Your task to perform on an android device: Open location settings Image 0: 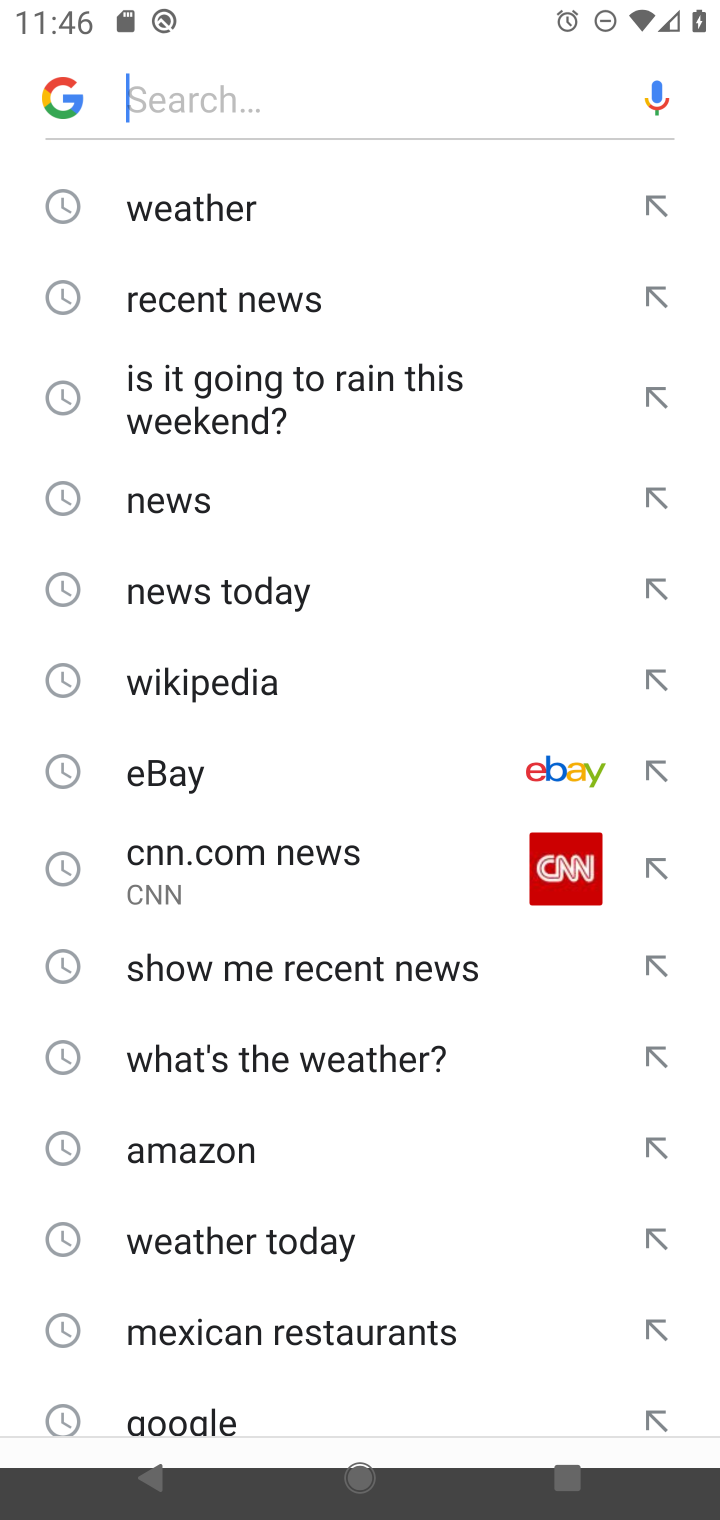
Step 0: press home button
Your task to perform on an android device: Open location settings Image 1: 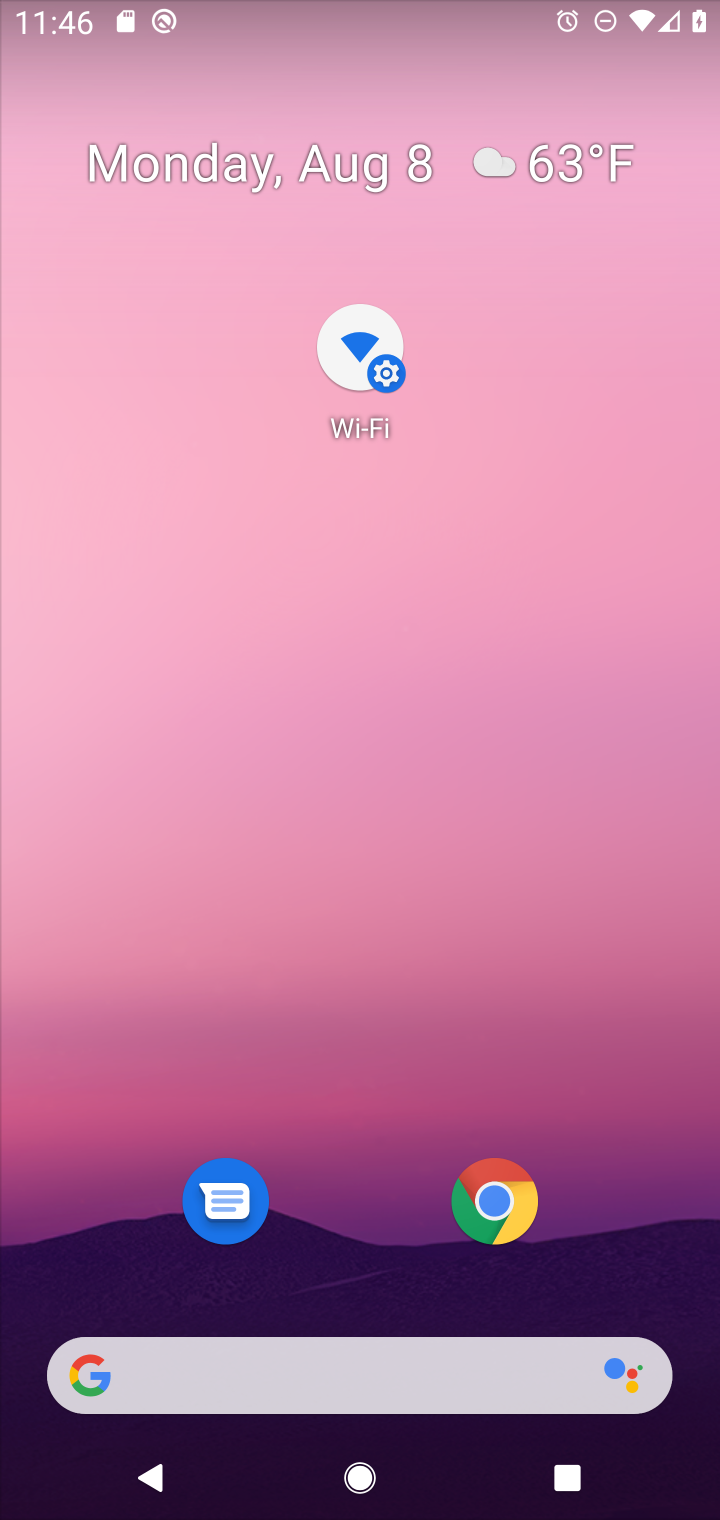
Step 1: drag from (361, 1275) to (710, 818)
Your task to perform on an android device: Open location settings Image 2: 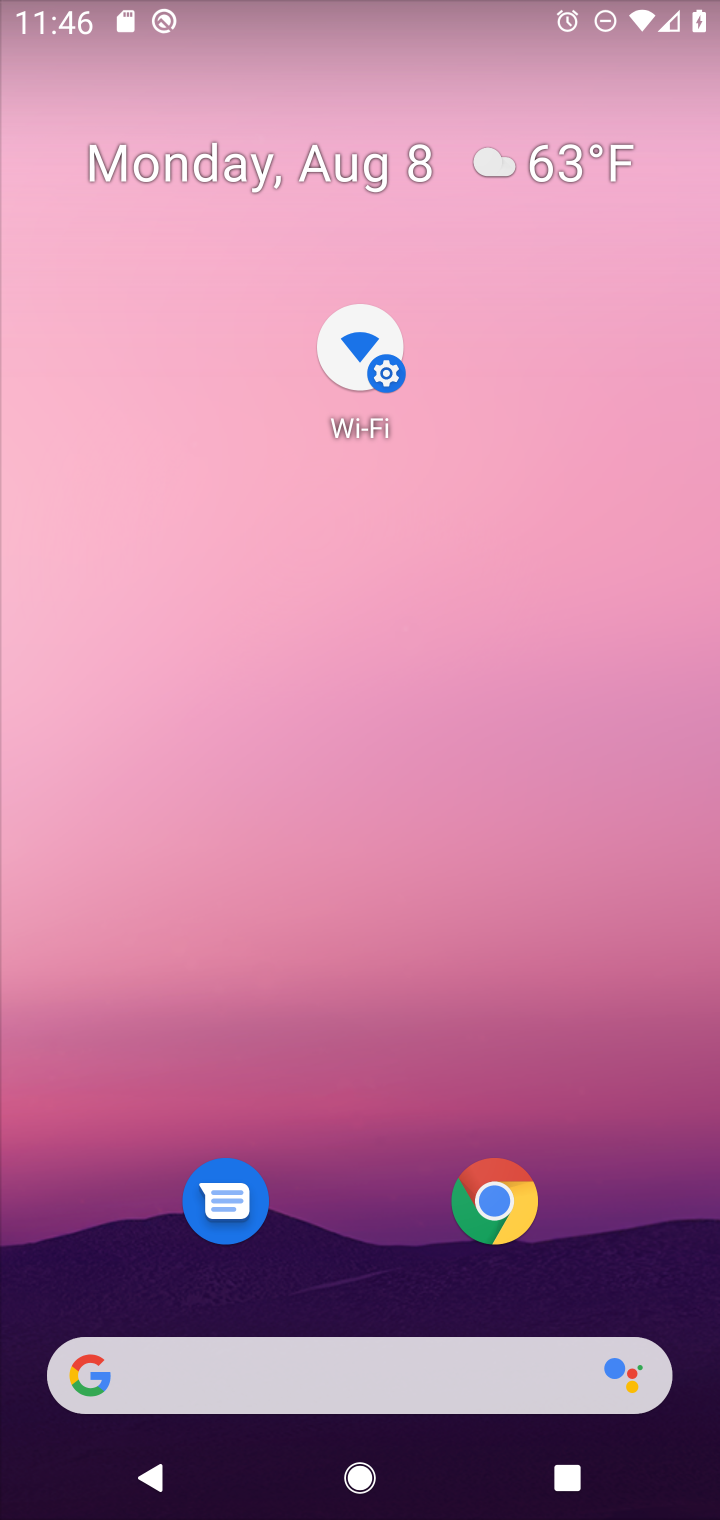
Step 2: drag from (368, 1262) to (488, 149)
Your task to perform on an android device: Open location settings Image 3: 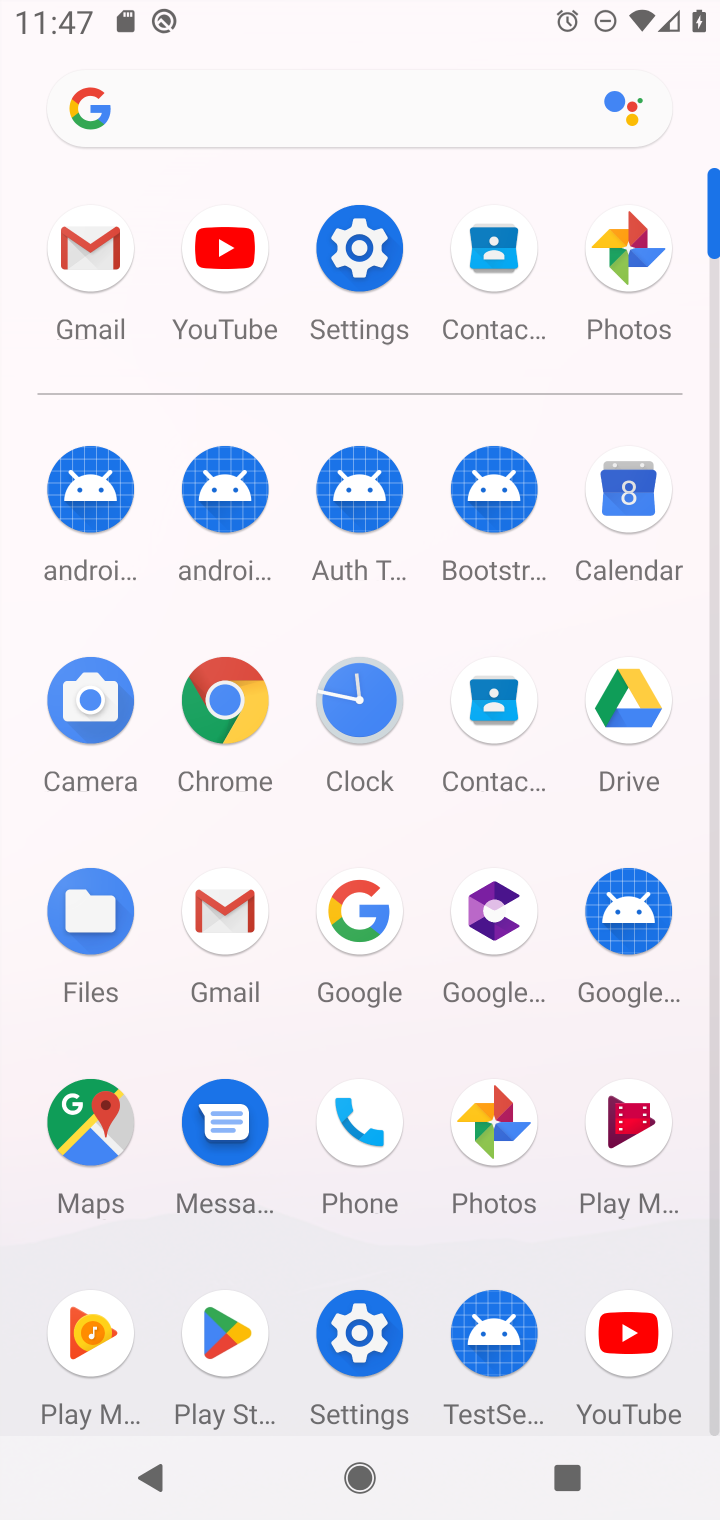
Step 3: click (359, 1338)
Your task to perform on an android device: Open location settings Image 4: 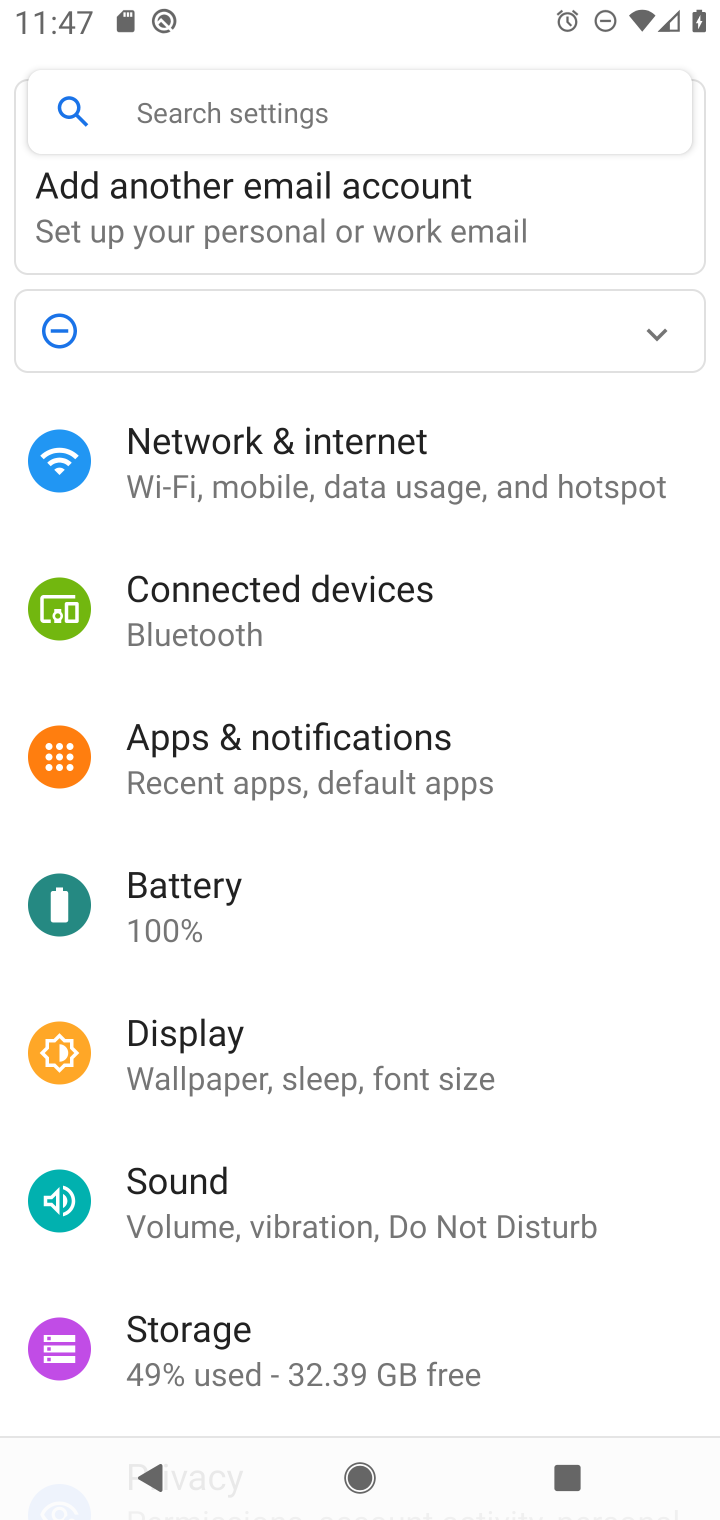
Step 4: drag from (620, 1226) to (610, 633)
Your task to perform on an android device: Open location settings Image 5: 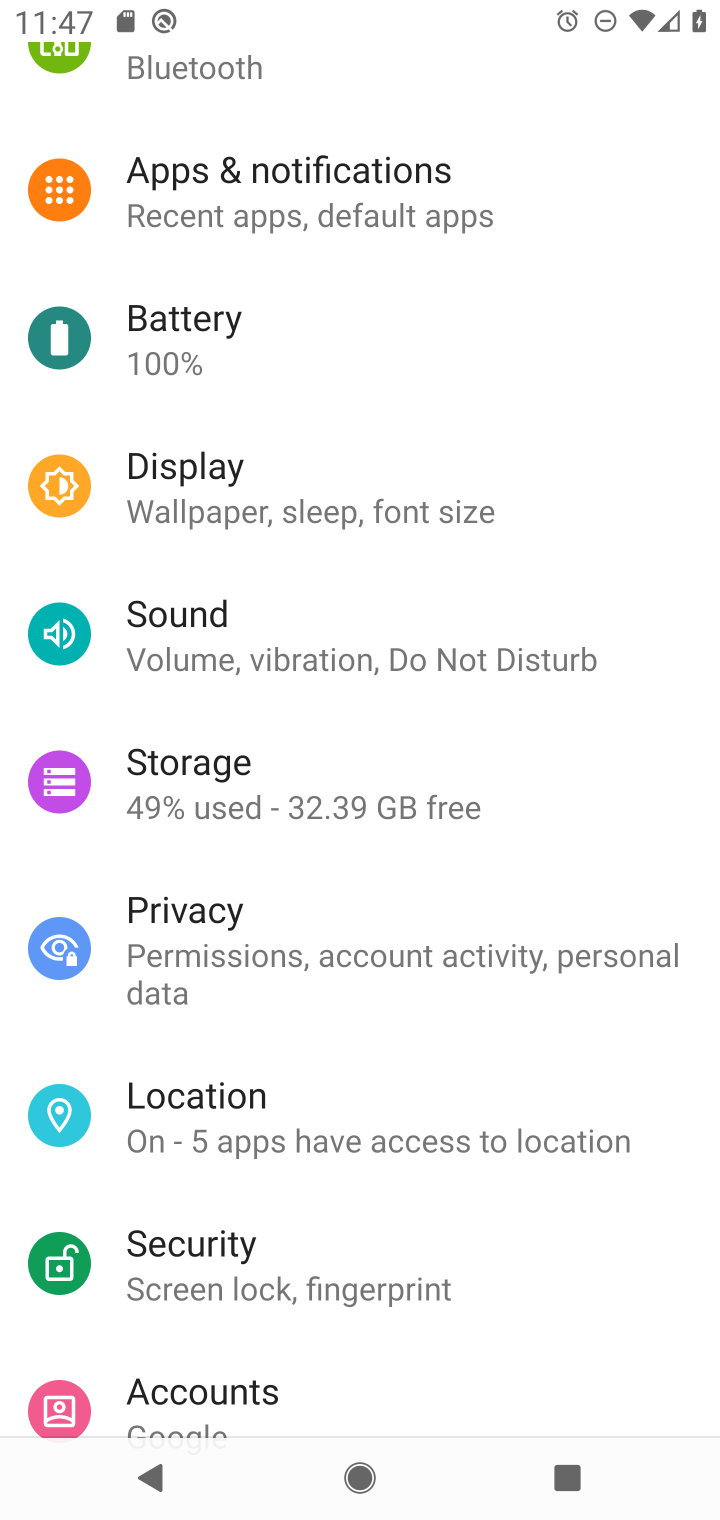
Step 5: drag from (612, 1197) to (632, 520)
Your task to perform on an android device: Open location settings Image 6: 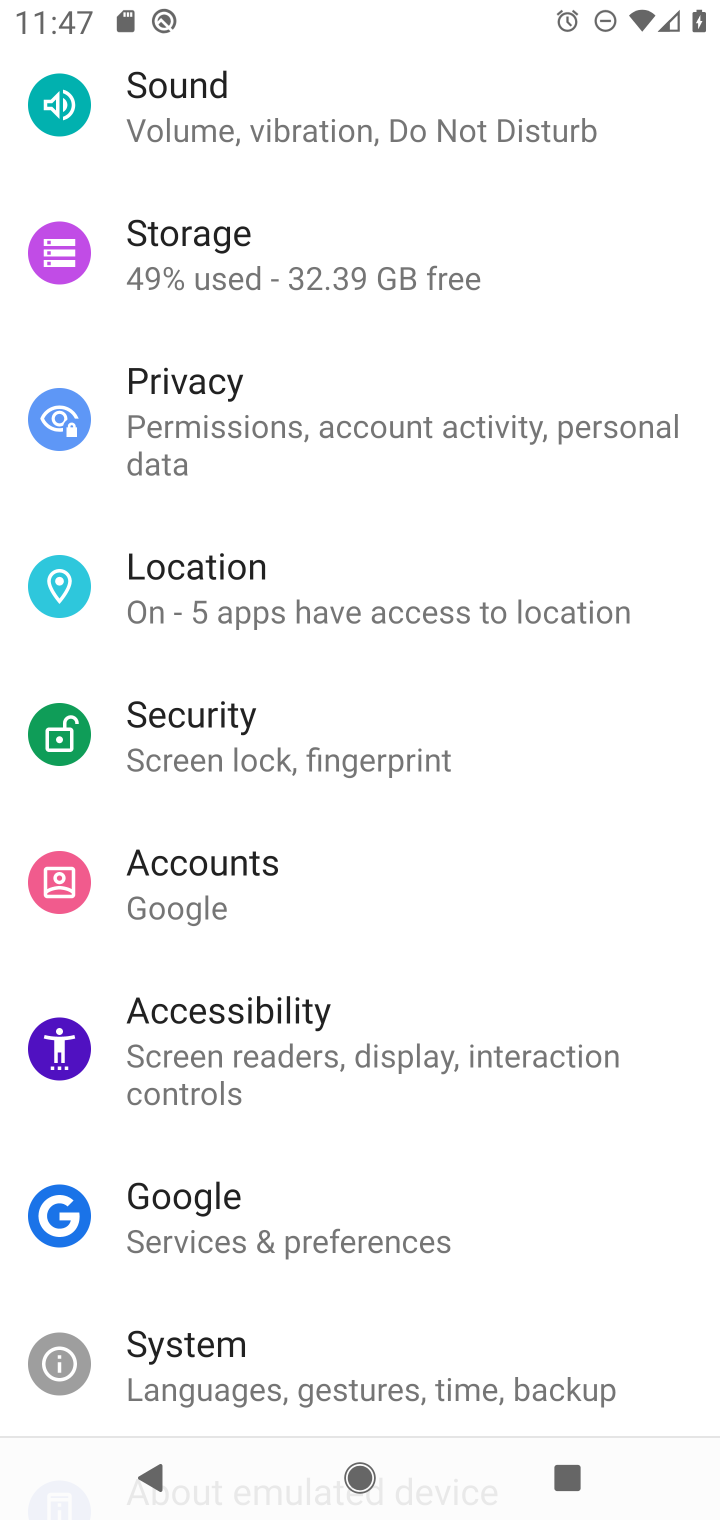
Step 6: drag from (578, 1211) to (612, 640)
Your task to perform on an android device: Open location settings Image 7: 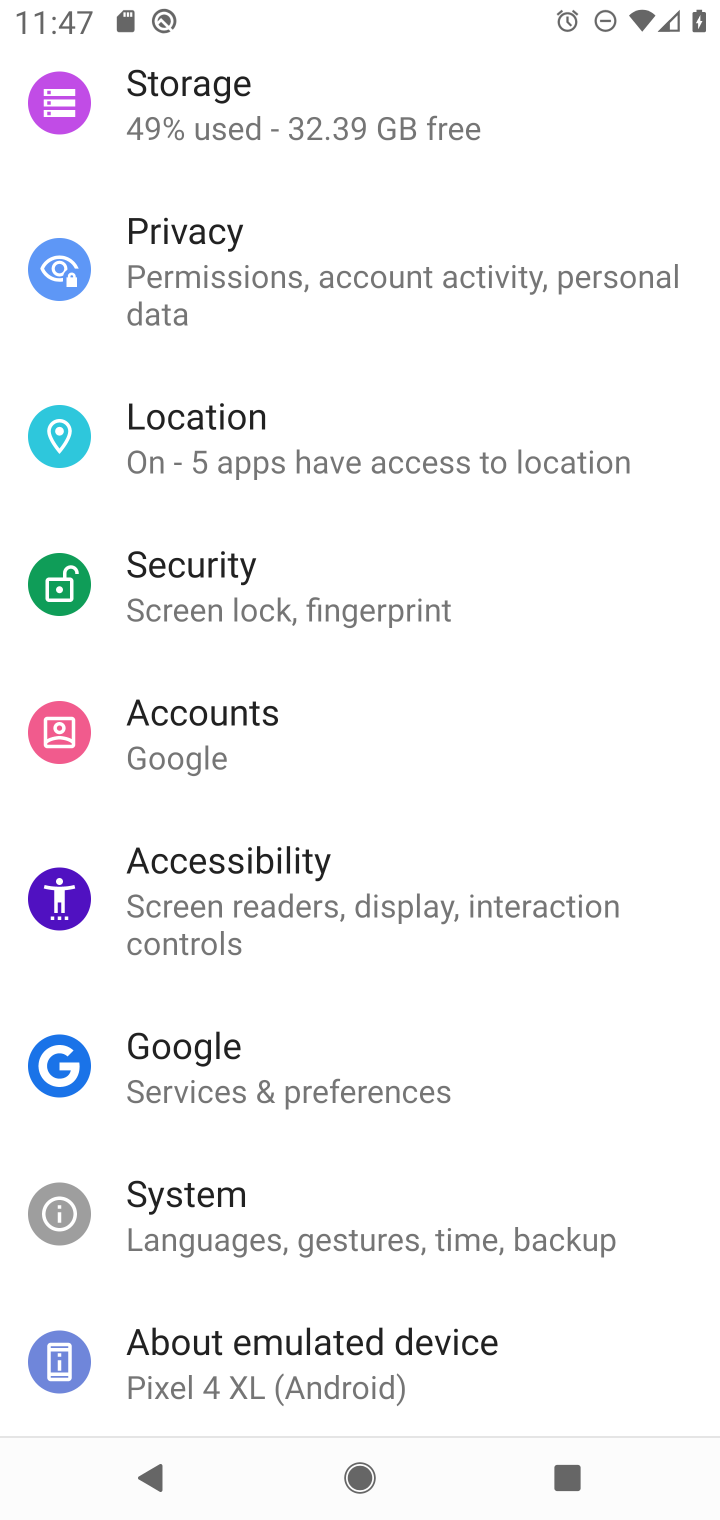
Step 7: drag from (599, 1265) to (616, 691)
Your task to perform on an android device: Open location settings Image 8: 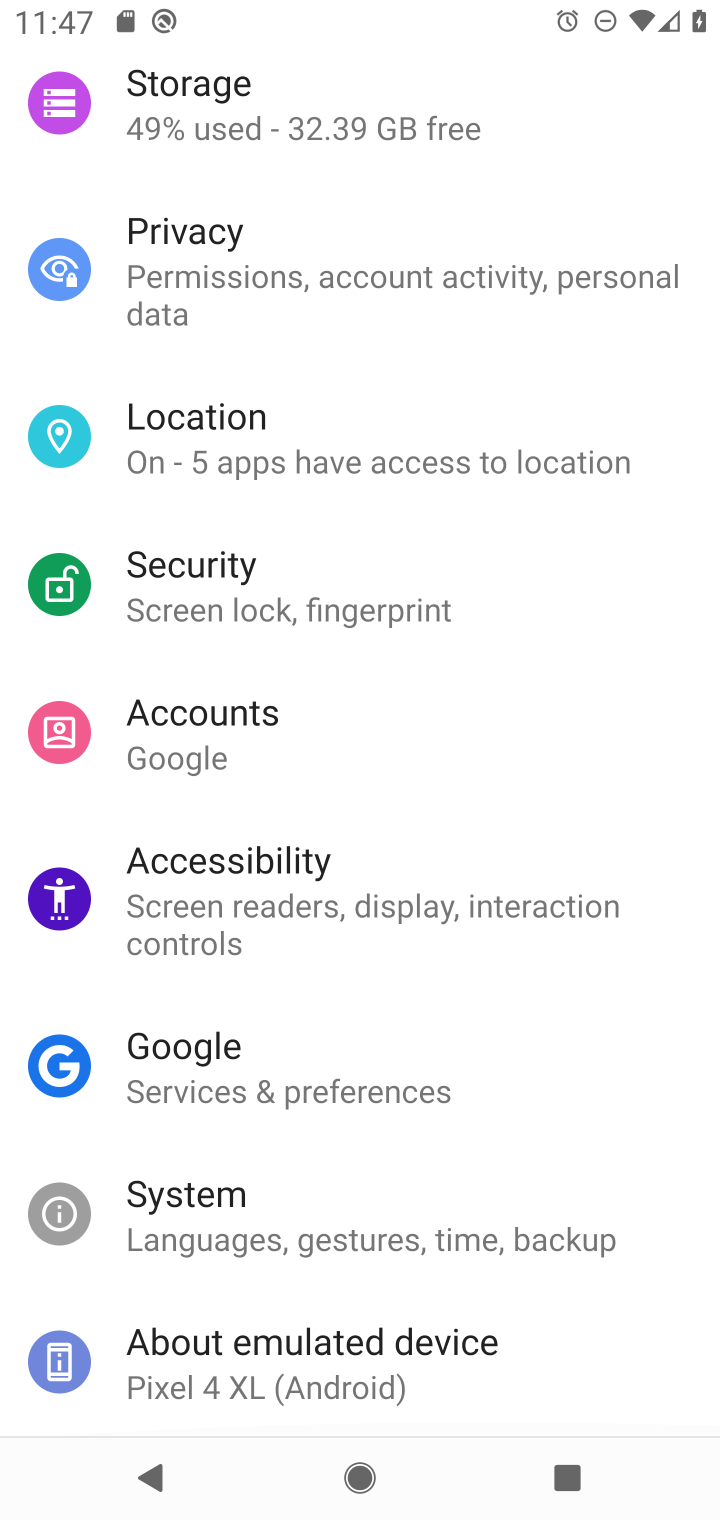
Step 8: drag from (617, 553) to (635, 971)
Your task to perform on an android device: Open location settings Image 9: 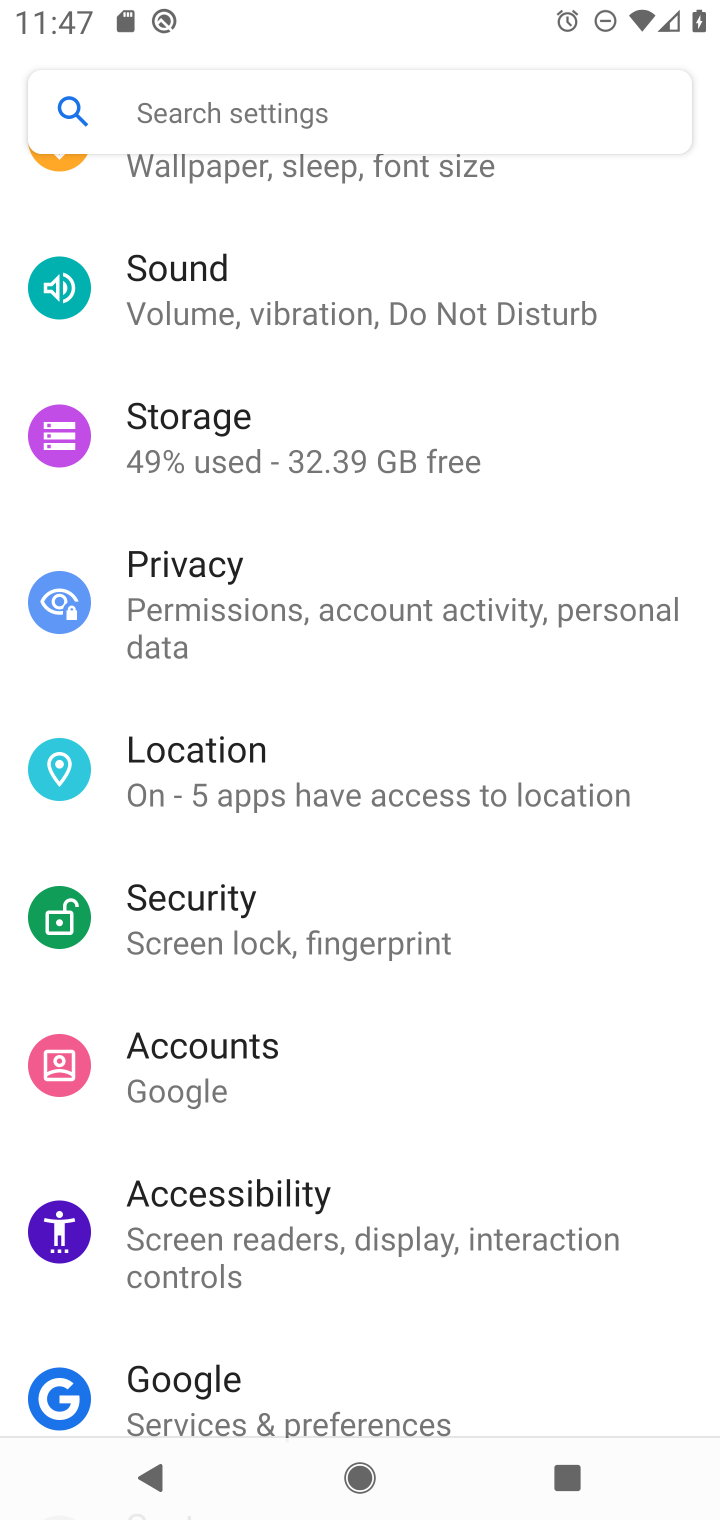
Step 9: drag from (582, 1083) to (590, 551)
Your task to perform on an android device: Open location settings Image 10: 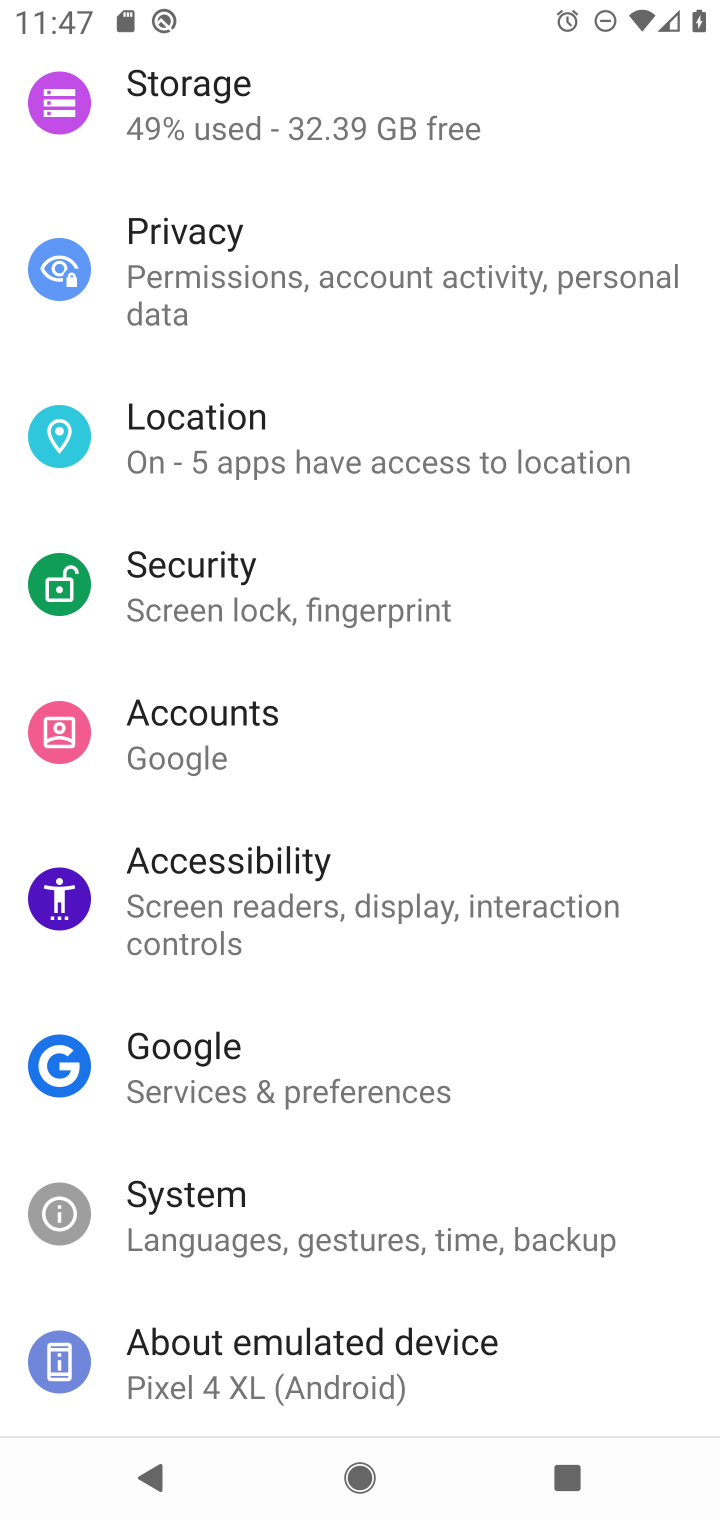
Step 10: drag from (585, 1307) to (606, 632)
Your task to perform on an android device: Open location settings Image 11: 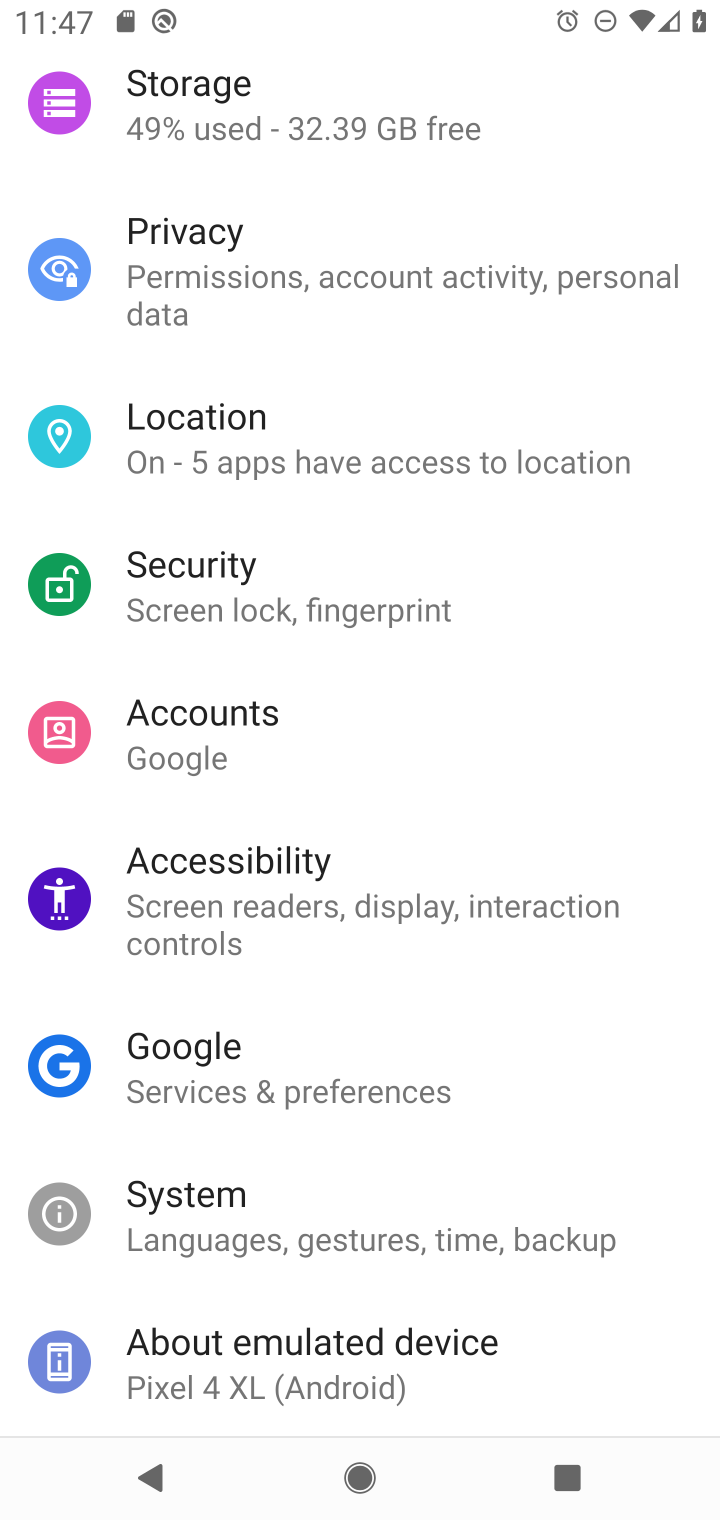
Step 11: drag from (548, 609) to (553, 1095)
Your task to perform on an android device: Open location settings Image 12: 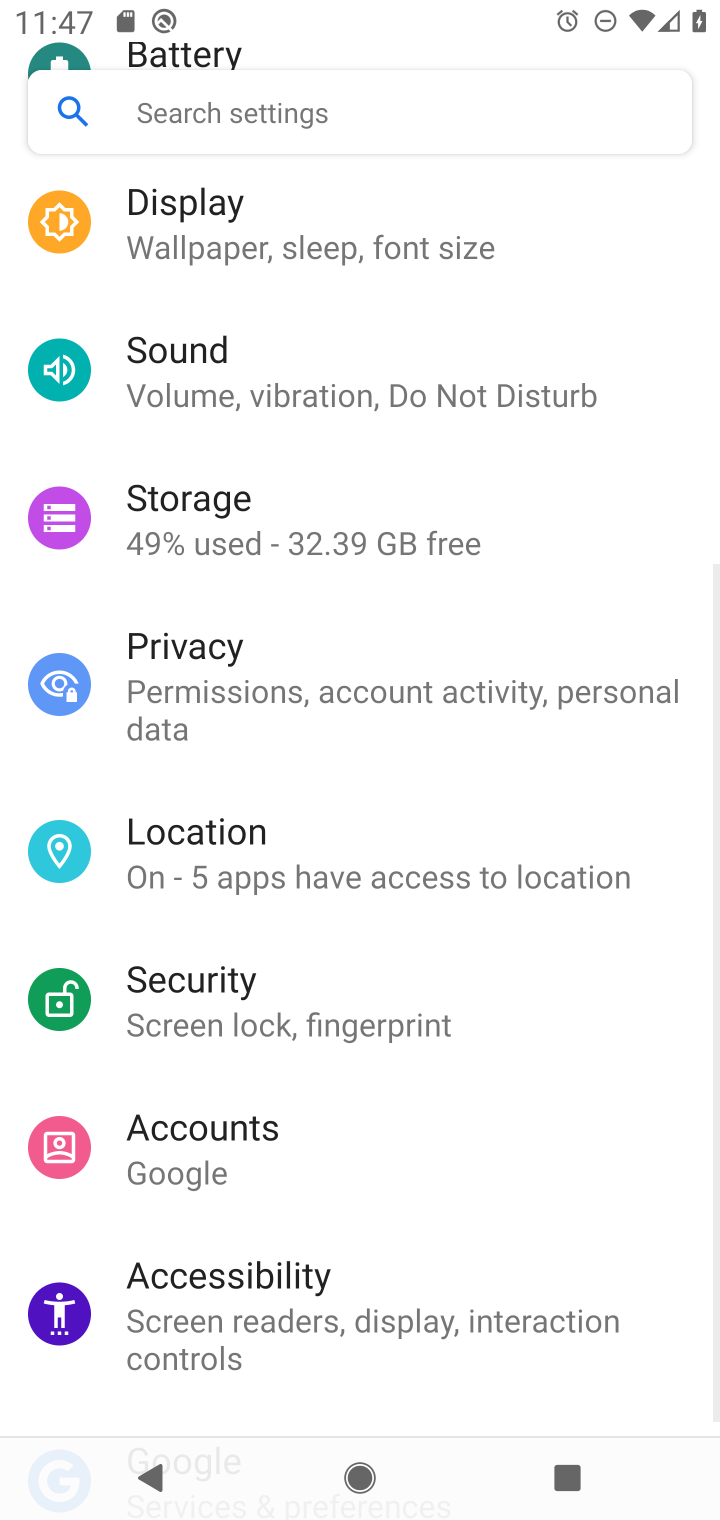
Step 12: drag from (600, 332) to (584, 847)
Your task to perform on an android device: Open location settings Image 13: 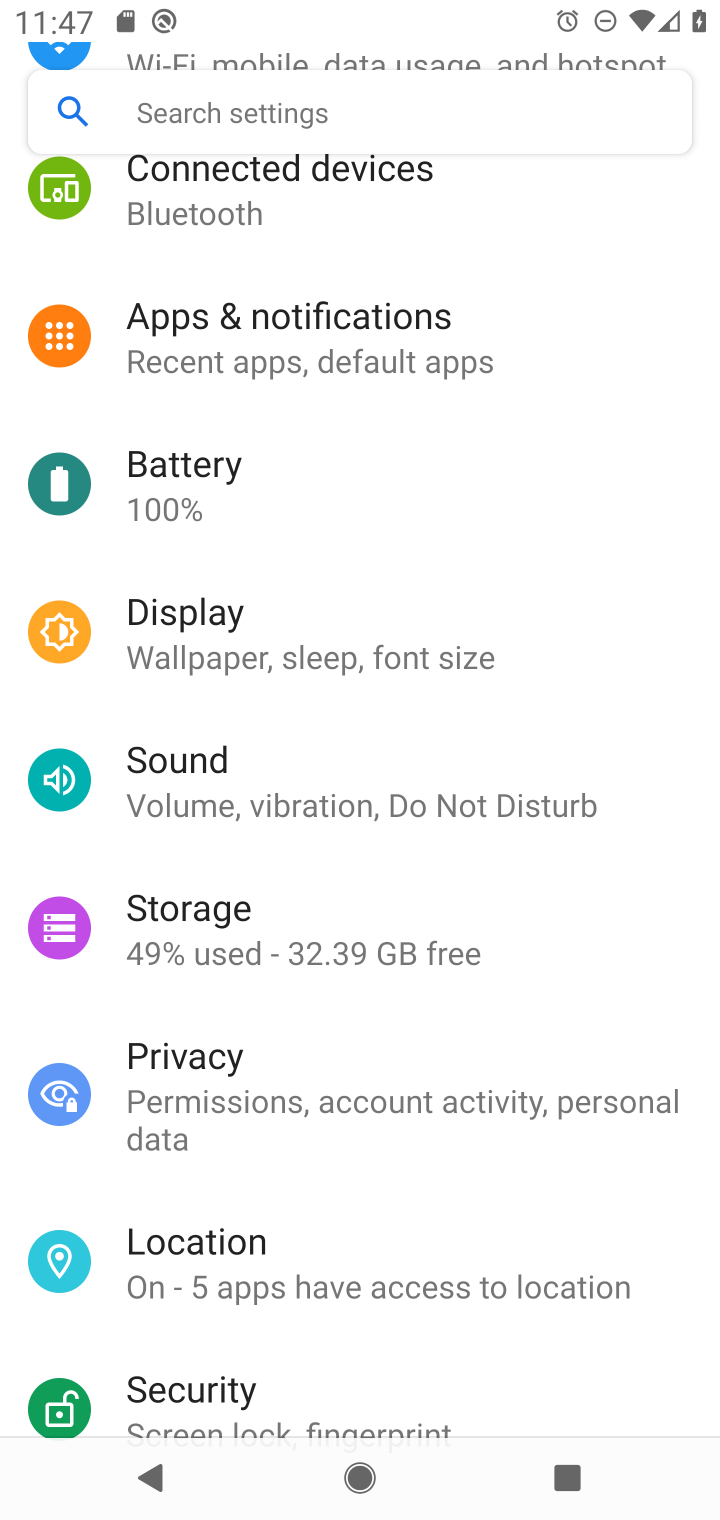
Step 13: click (309, 1263)
Your task to perform on an android device: Open location settings Image 14: 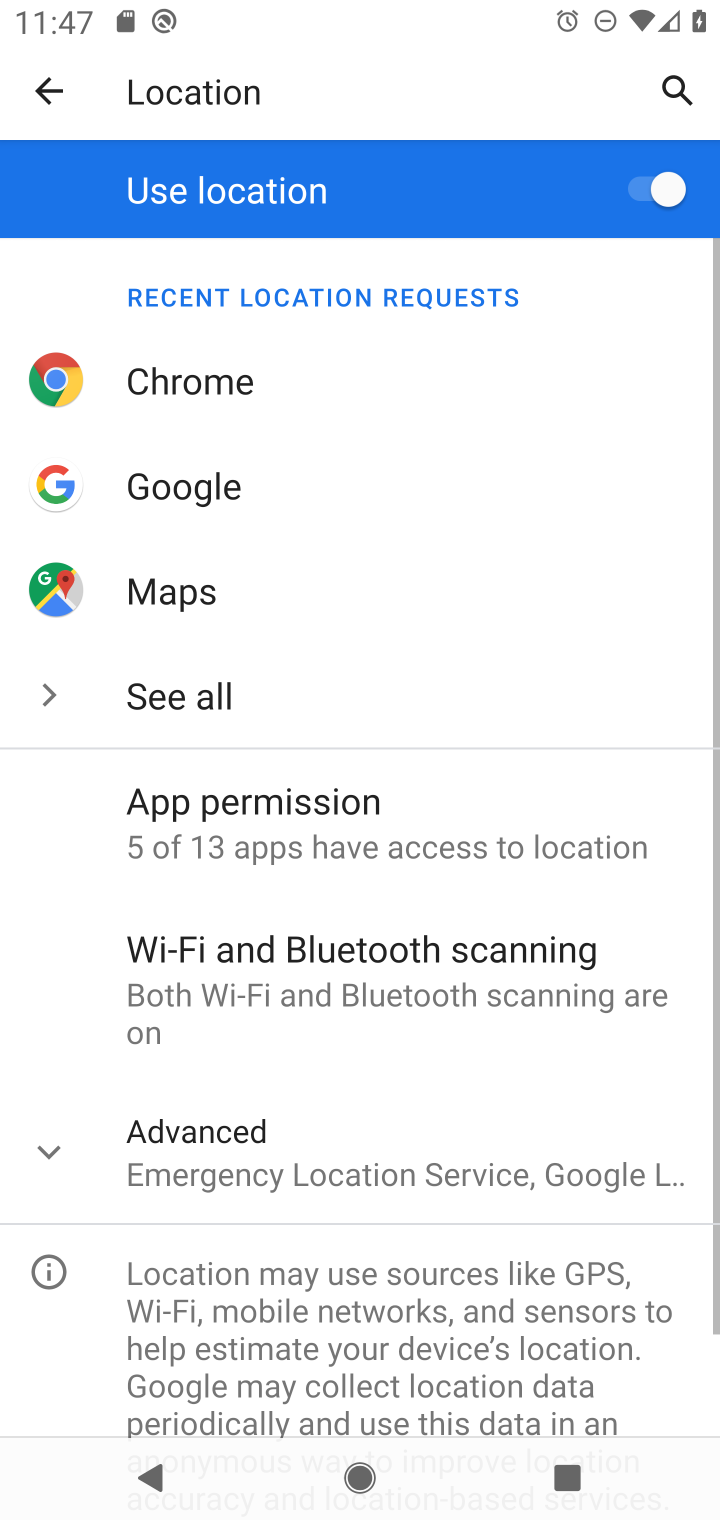
Step 14: task complete